Your task to perform on an android device: What's the weather going to be tomorrow? Image 0: 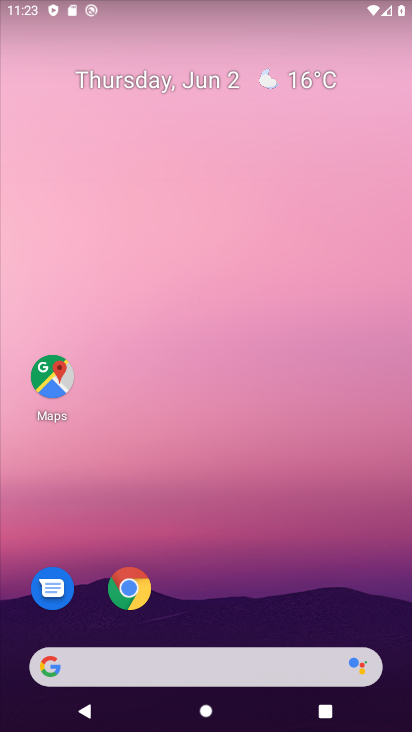
Step 0: drag from (238, 608) to (288, 179)
Your task to perform on an android device: What's the weather going to be tomorrow? Image 1: 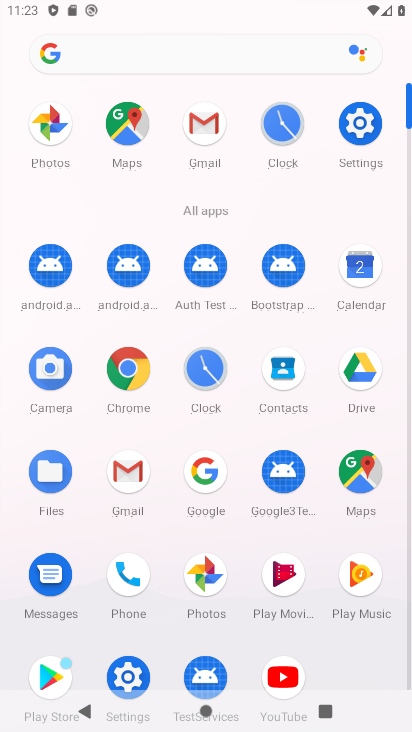
Step 1: click (205, 488)
Your task to perform on an android device: What's the weather going to be tomorrow? Image 2: 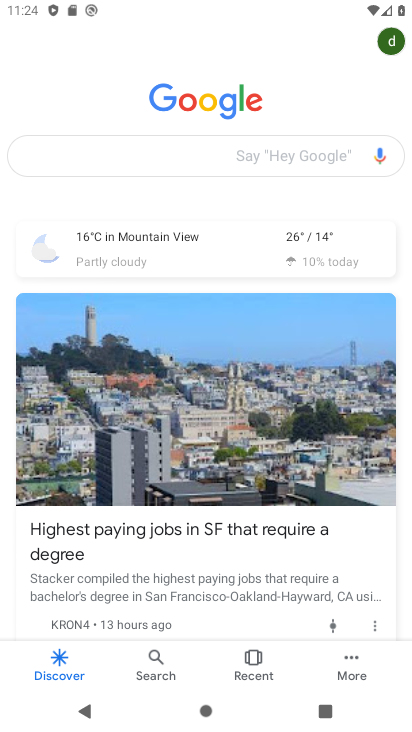
Step 2: click (193, 244)
Your task to perform on an android device: What's the weather going to be tomorrow? Image 3: 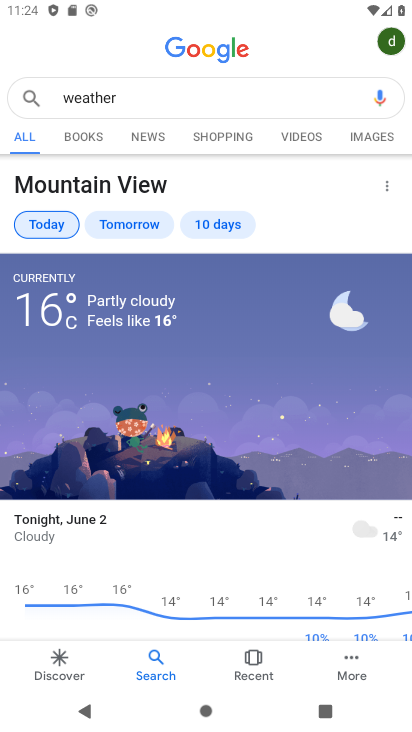
Step 3: click (144, 228)
Your task to perform on an android device: What's the weather going to be tomorrow? Image 4: 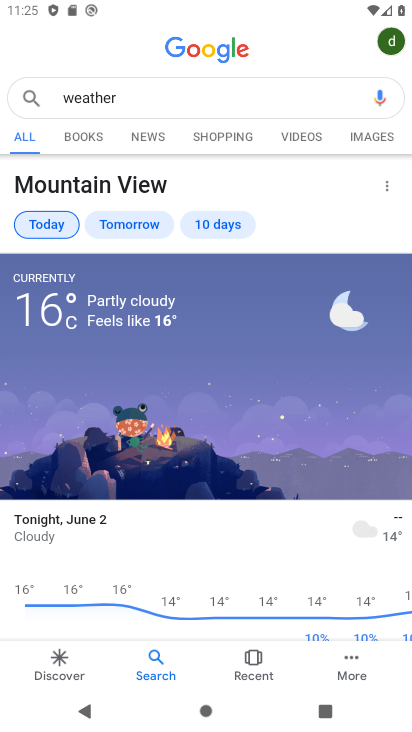
Step 4: click (138, 224)
Your task to perform on an android device: What's the weather going to be tomorrow? Image 5: 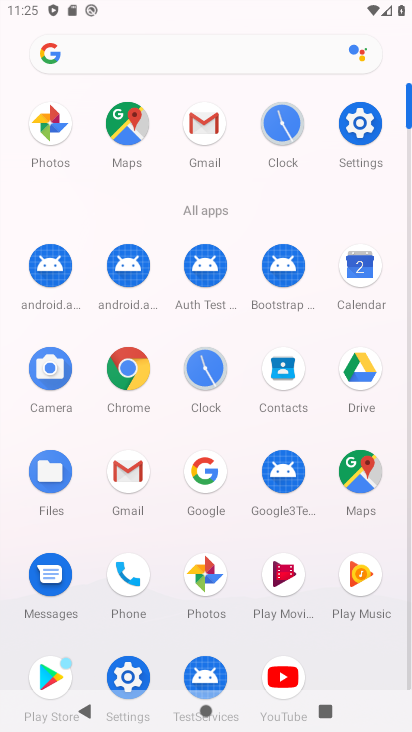
Step 5: task complete